Your task to perform on an android device: open device folders in google photos Image 0: 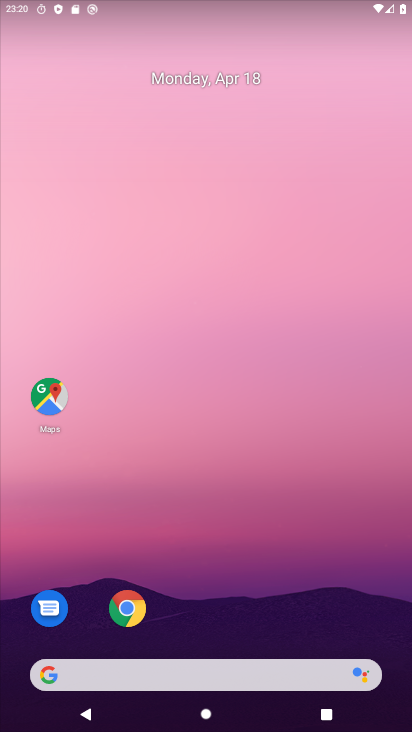
Step 0: drag from (230, 568) to (237, 200)
Your task to perform on an android device: open device folders in google photos Image 1: 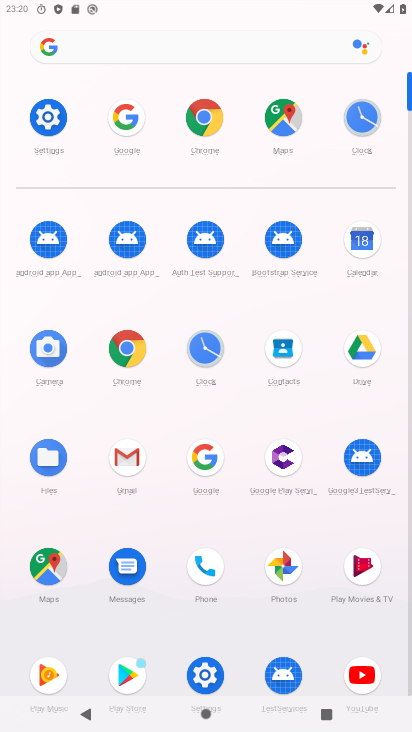
Step 1: click (282, 563)
Your task to perform on an android device: open device folders in google photos Image 2: 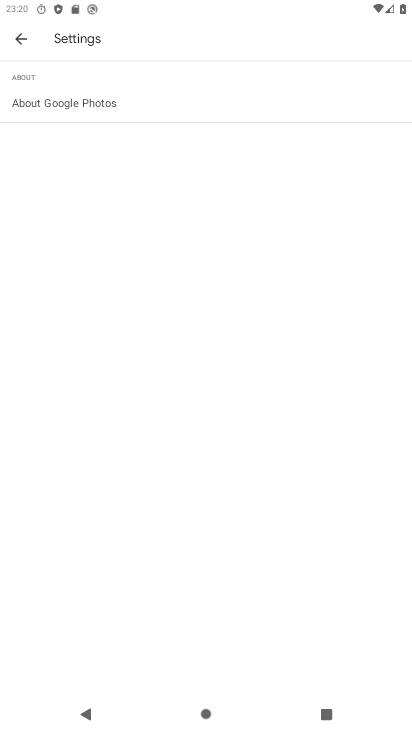
Step 2: press back button
Your task to perform on an android device: open device folders in google photos Image 3: 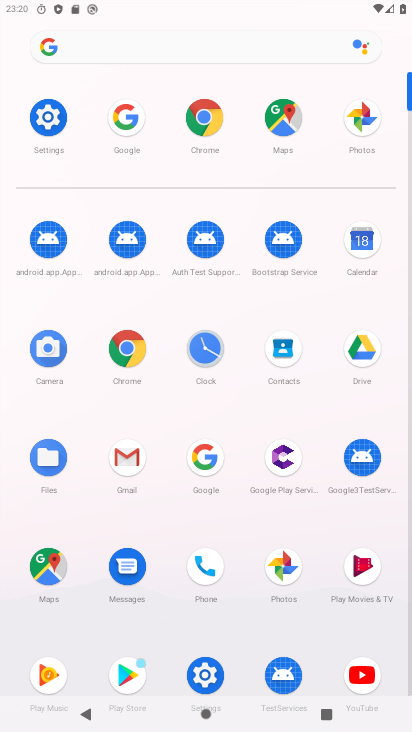
Step 3: click (360, 116)
Your task to perform on an android device: open device folders in google photos Image 4: 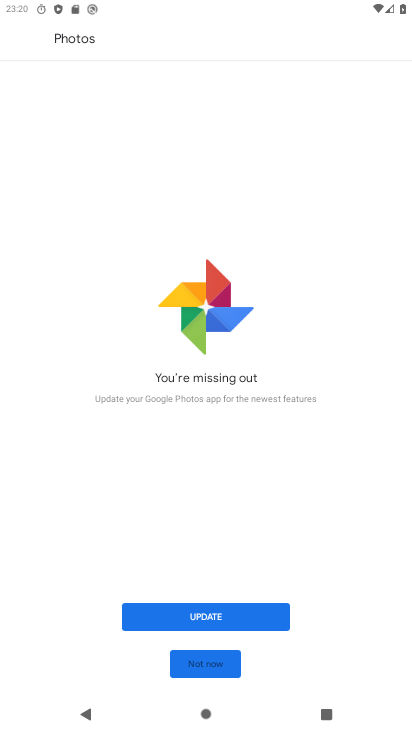
Step 4: click (213, 667)
Your task to perform on an android device: open device folders in google photos Image 5: 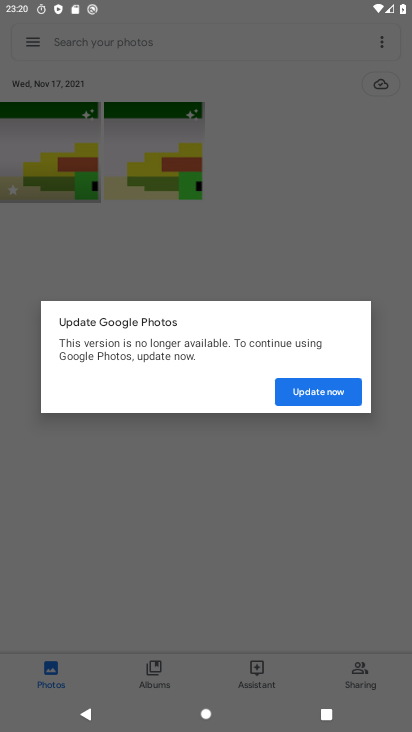
Step 5: click (305, 396)
Your task to perform on an android device: open device folders in google photos Image 6: 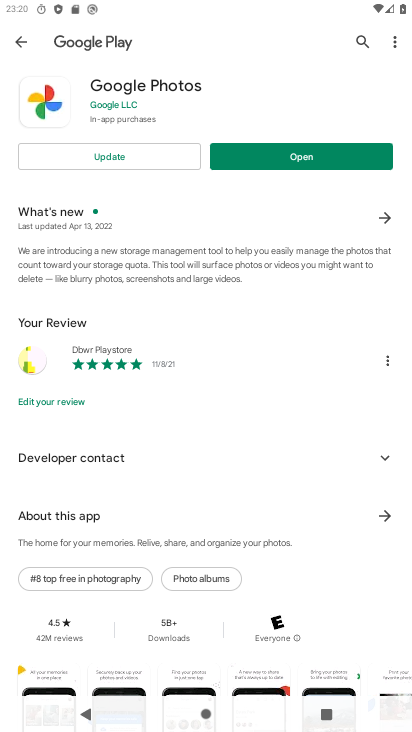
Step 6: click (263, 154)
Your task to perform on an android device: open device folders in google photos Image 7: 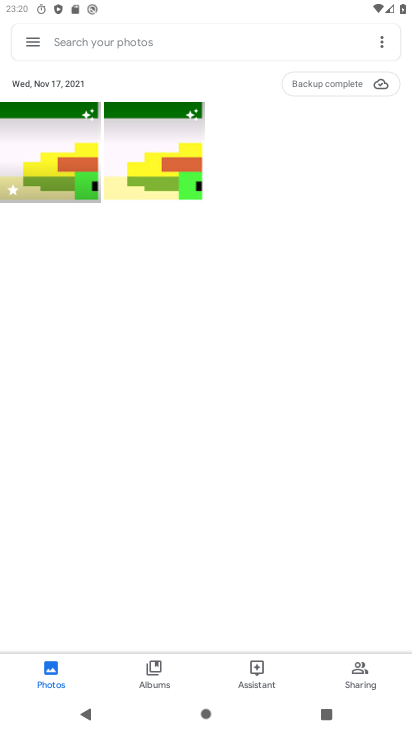
Step 7: click (29, 39)
Your task to perform on an android device: open device folders in google photos Image 8: 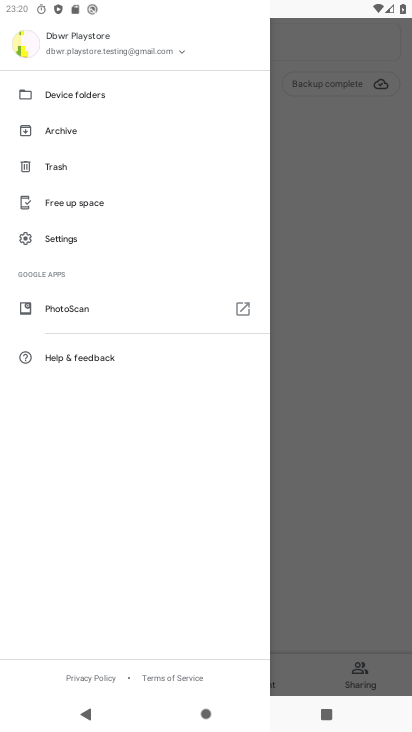
Step 8: click (84, 101)
Your task to perform on an android device: open device folders in google photos Image 9: 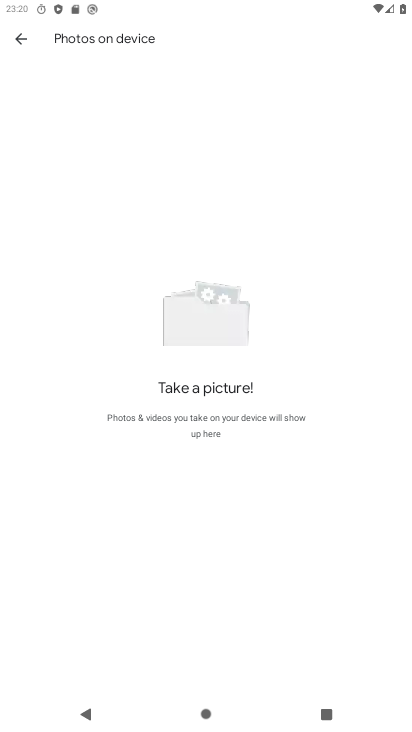
Step 9: task complete